Your task to perform on an android device: turn notification dots on Image 0: 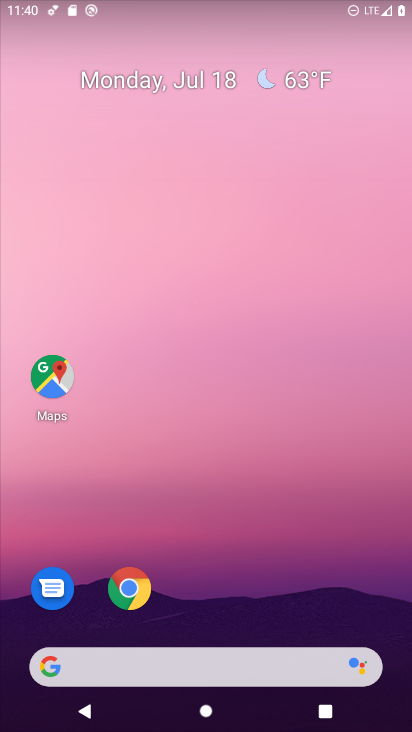
Step 0: drag from (233, 651) to (286, 166)
Your task to perform on an android device: turn notification dots on Image 1: 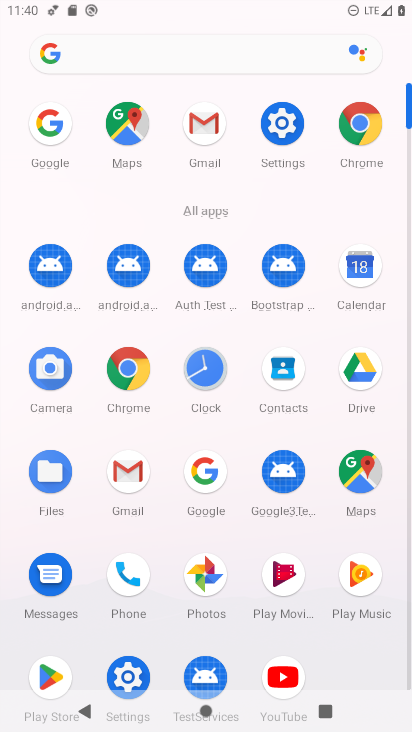
Step 1: click (285, 120)
Your task to perform on an android device: turn notification dots on Image 2: 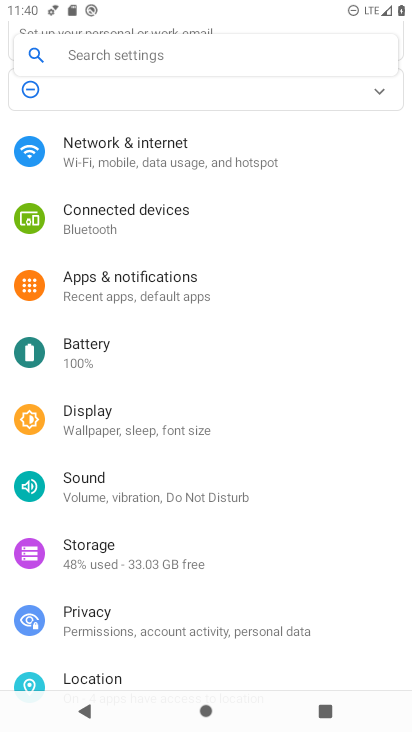
Step 2: click (169, 289)
Your task to perform on an android device: turn notification dots on Image 3: 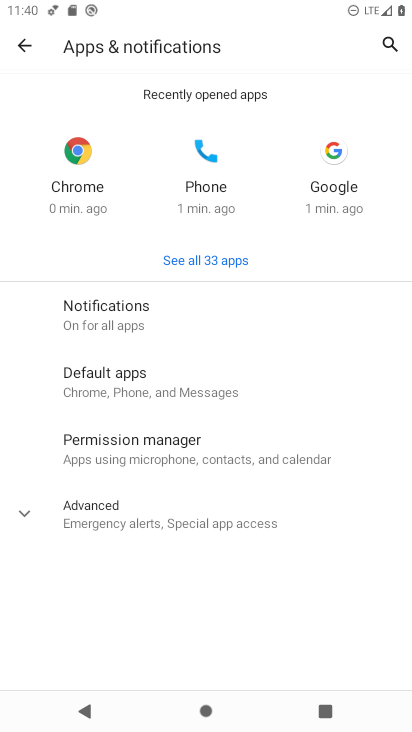
Step 3: click (115, 315)
Your task to perform on an android device: turn notification dots on Image 4: 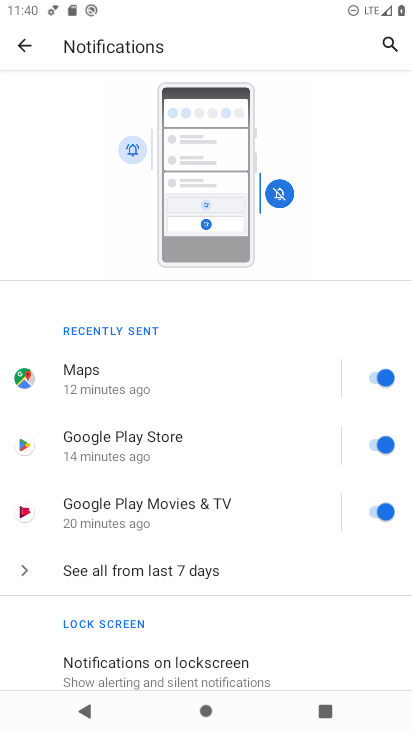
Step 4: drag from (125, 549) to (202, 75)
Your task to perform on an android device: turn notification dots on Image 5: 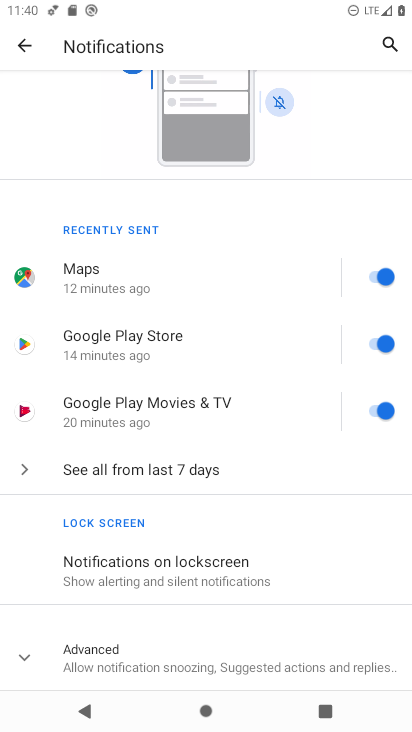
Step 5: click (134, 655)
Your task to perform on an android device: turn notification dots on Image 6: 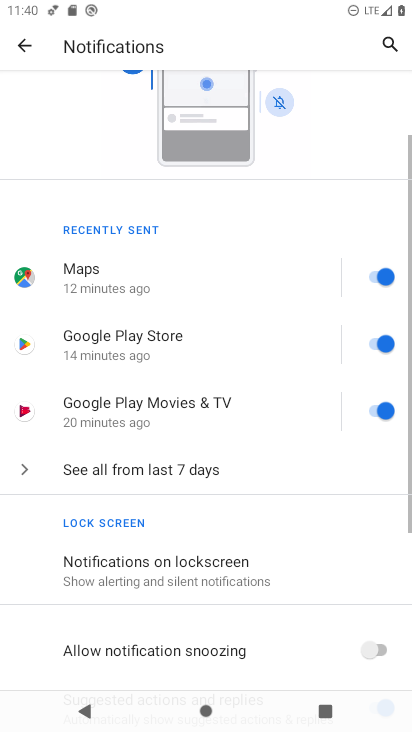
Step 6: task complete